Your task to perform on an android device: all mails in gmail Image 0: 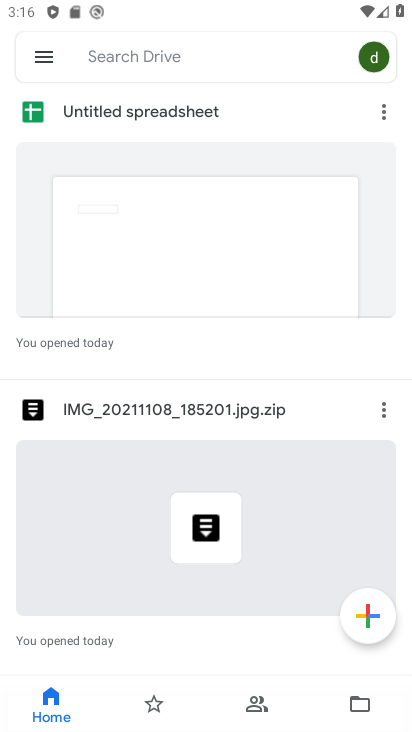
Step 0: press home button
Your task to perform on an android device: all mails in gmail Image 1: 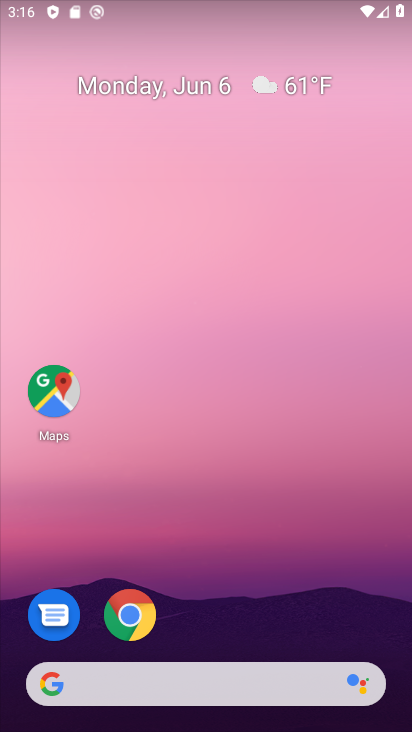
Step 1: drag from (376, 629) to (338, 76)
Your task to perform on an android device: all mails in gmail Image 2: 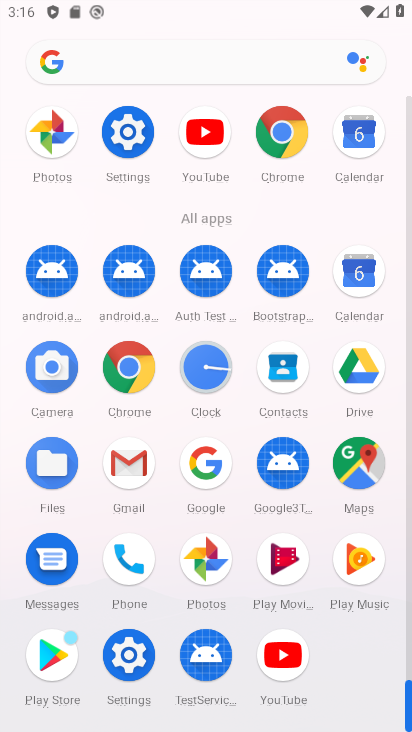
Step 2: click (127, 463)
Your task to perform on an android device: all mails in gmail Image 3: 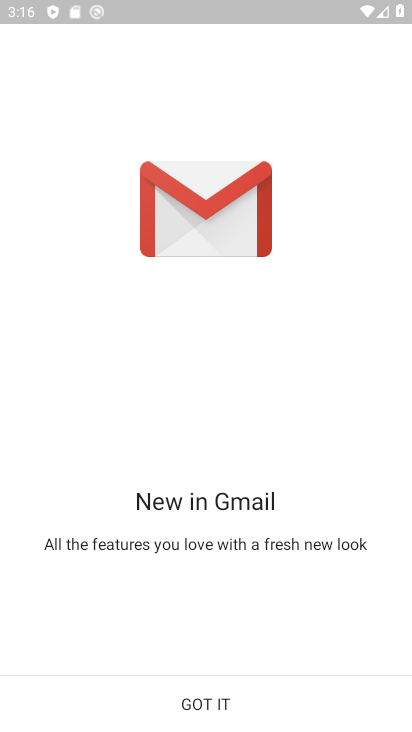
Step 3: click (229, 699)
Your task to perform on an android device: all mails in gmail Image 4: 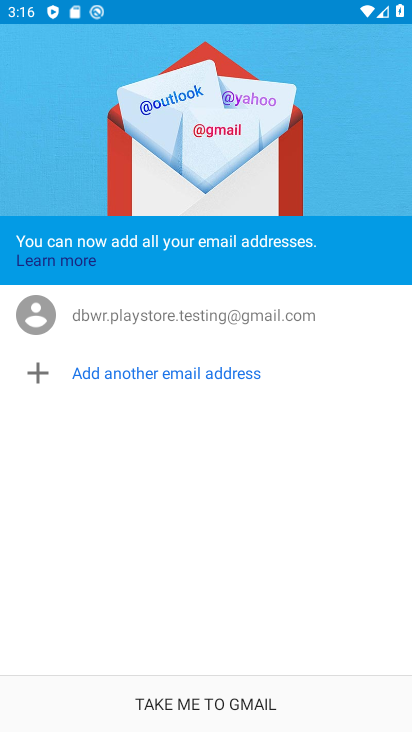
Step 4: click (229, 699)
Your task to perform on an android device: all mails in gmail Image 5: 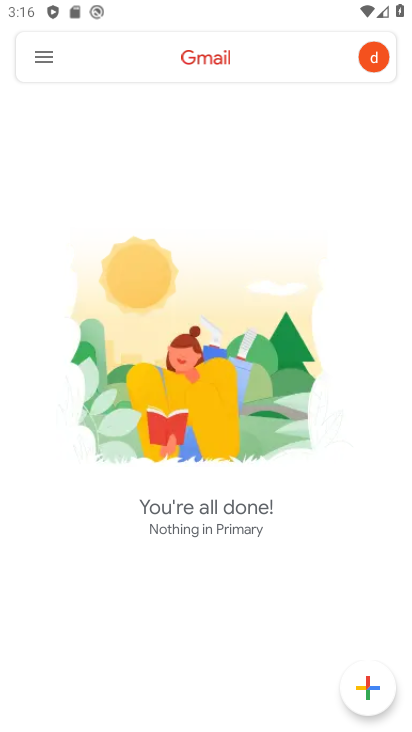
Step 5: click (39, 53)
Your task to perform on an android device: all mails in gmail Image 6: 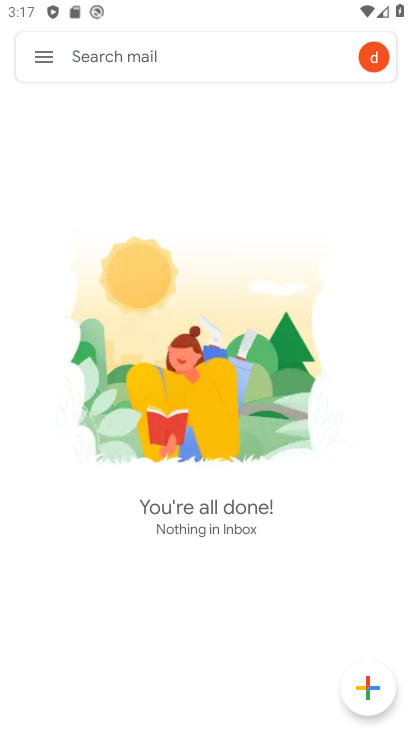
Step 6: click (43, 55)
Your task to perform on an android device: all mails in gmail Image 7: 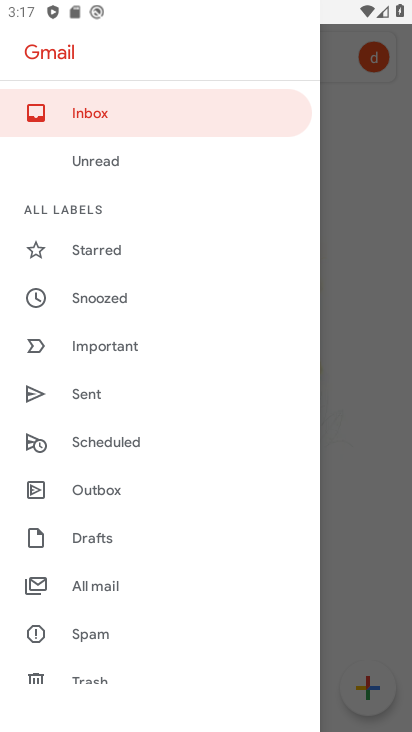
Step 7: click (105, 577)
Your task to perform on an android device: all mails in gmail Image 8: 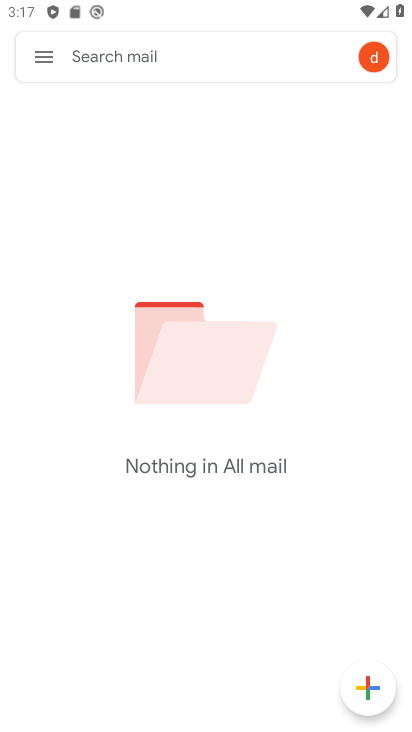
Step 8: task complete